Your task to perform on an android device: show emergency info Image 0: 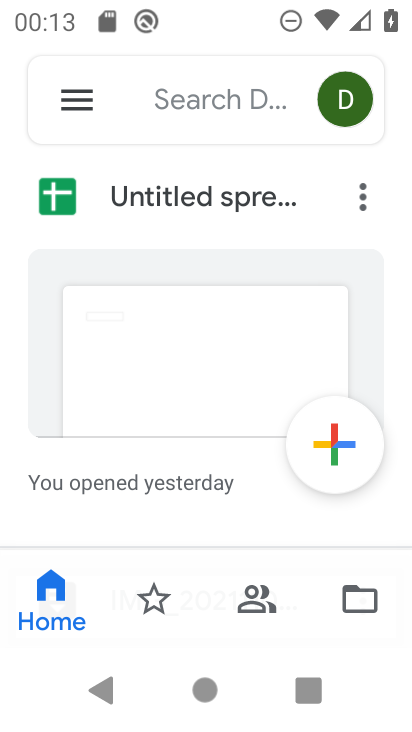
Step 0: press home button
Your task to perform on an android device: show emergency info Image 1: 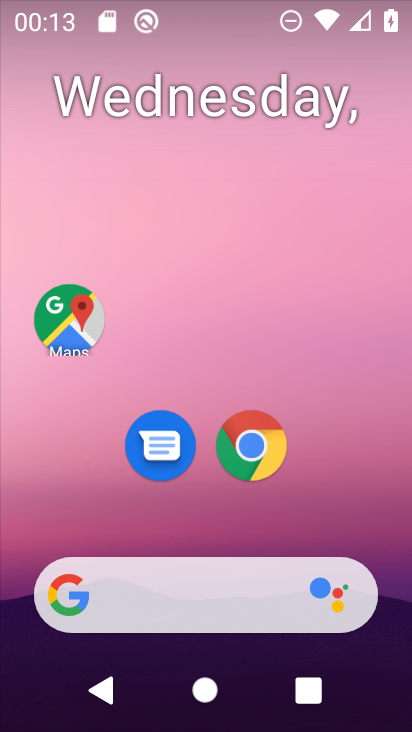
Step 1: drag from (187, 528) to (308, 12)
Your task to perform on an android device: show emergency info Image 2: 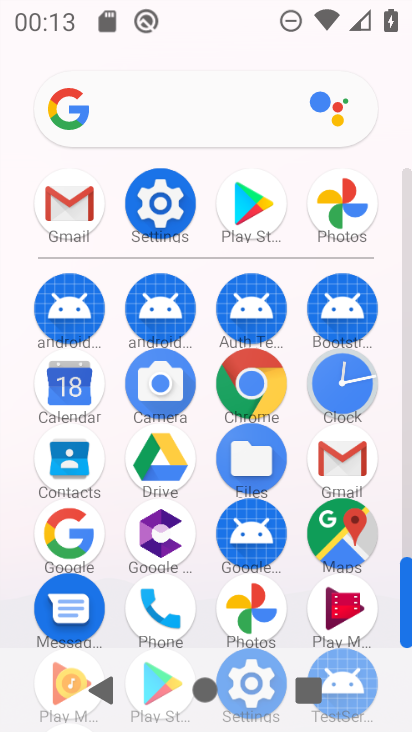
Step 2: click (158, 197)
Your task to perform on an android device: show emergency info Image 3: 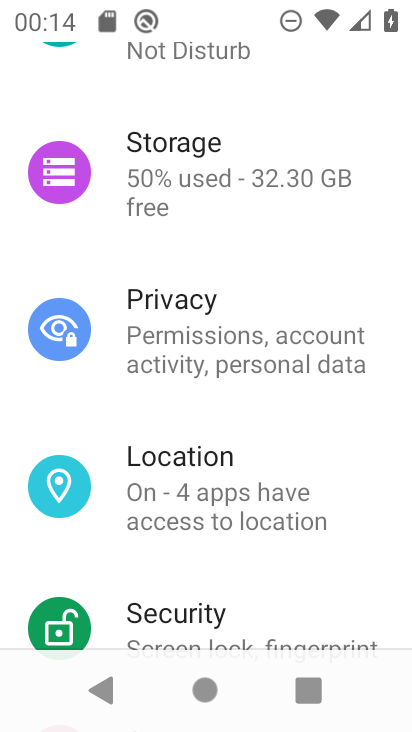
Step 3: drag from (218, 198) to (314, 6)
Your task to perform on an android device: show emergency info Image 4: 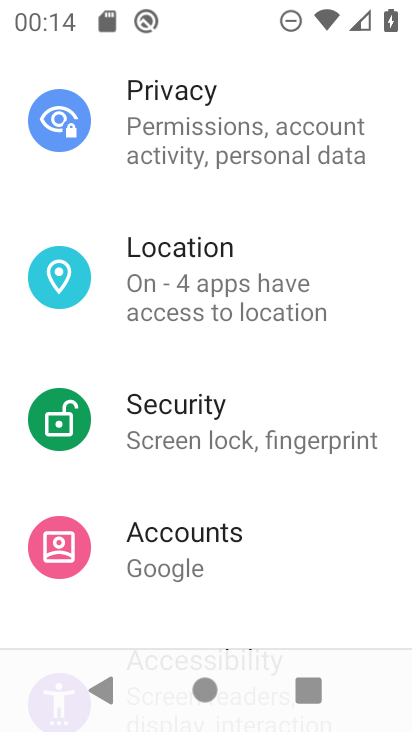
Step 4: drag from (221, 357) to (283, 57)
Your task to perform on an android device: show emergency info Image 5: 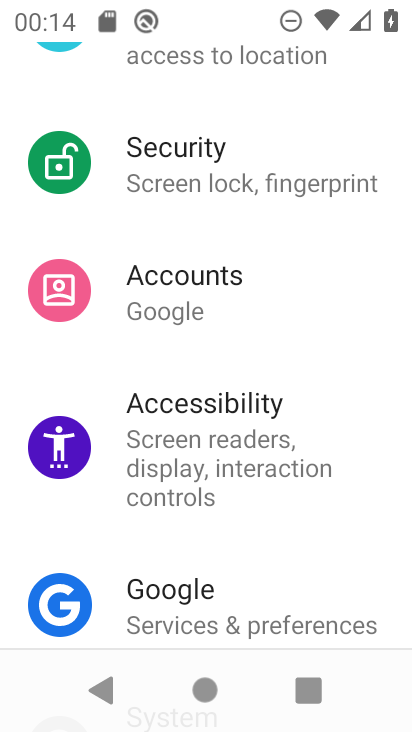
Step 5: drag from (231, 345) to (286, 165)
Your task to perform on an android device: show emergency info Image 6: 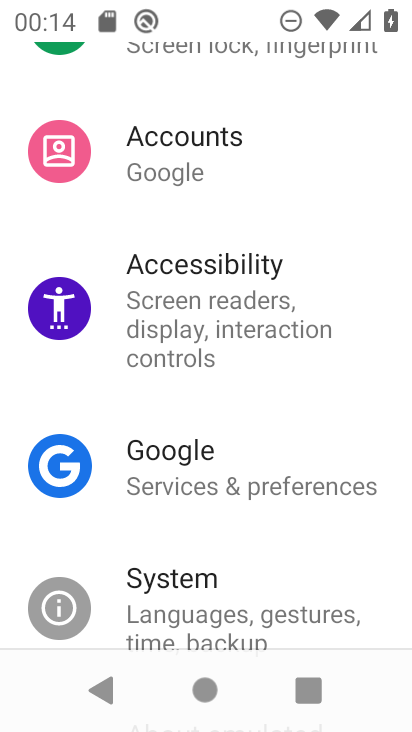
Step 6: drag from (227, 384) to (314, 182)
Your task to perform on an android device: show emergency info Image 7: 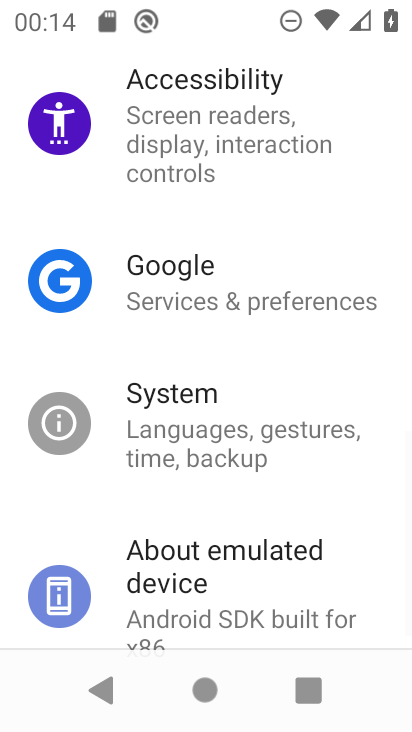
Step 7: drag from (268, 442) to (313, 328)
Your task to perform on an android device: show emergency info Image 8: 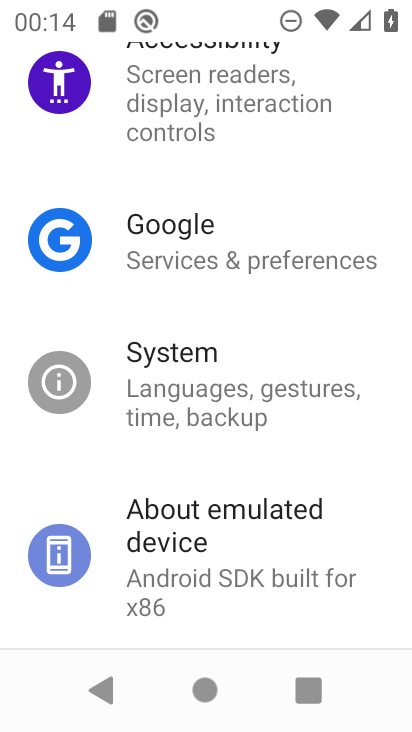
Step 8: click (259, 510)
Your task to perform on an android device: show emergency info Image 9: 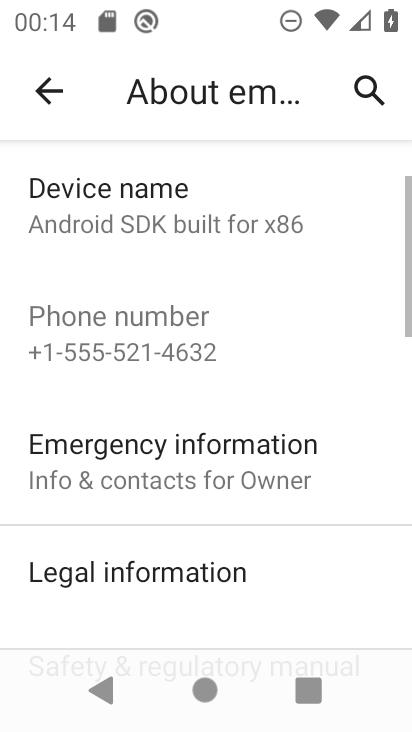
Step 9: click (134, 474)
Your task to perform on an android device: show emergency info Image 10: 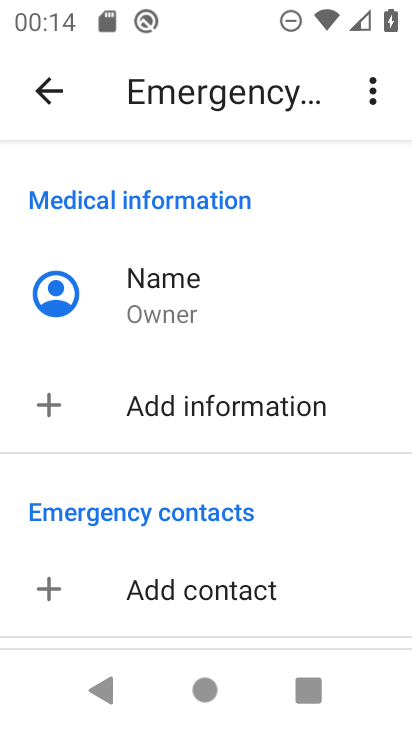
Step 10: task complete